Your task to perform on an android device: open sync settings in chrome Image 0: 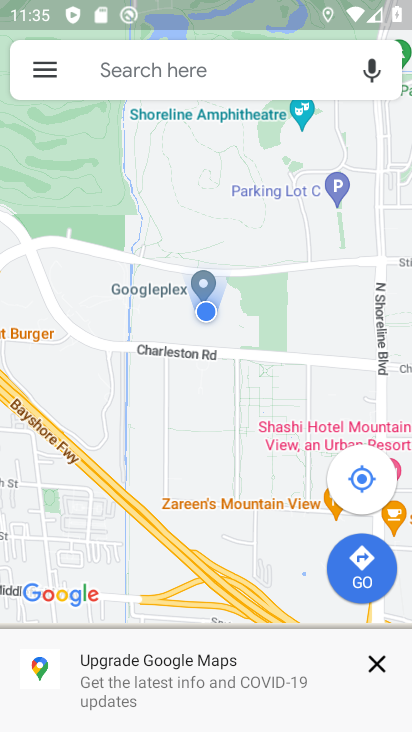
Step 0: press home button
Your task to perform on an android device: open sync settings in chrome Image 1: 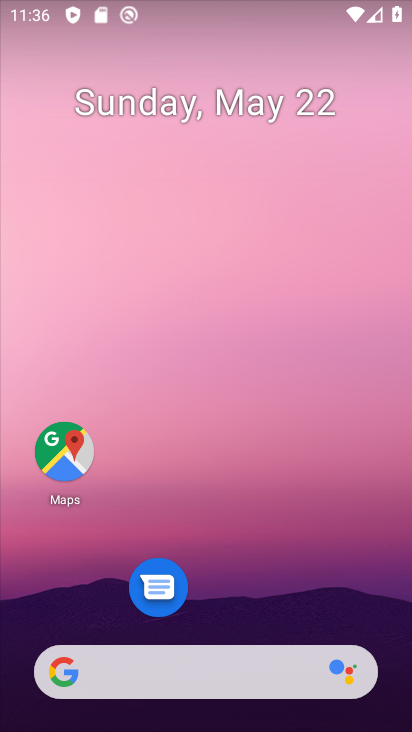
Step 1: drag from (227, 622) to (244, 44)
Your task to perform on an android device: open sync settings in chrome Image 2: 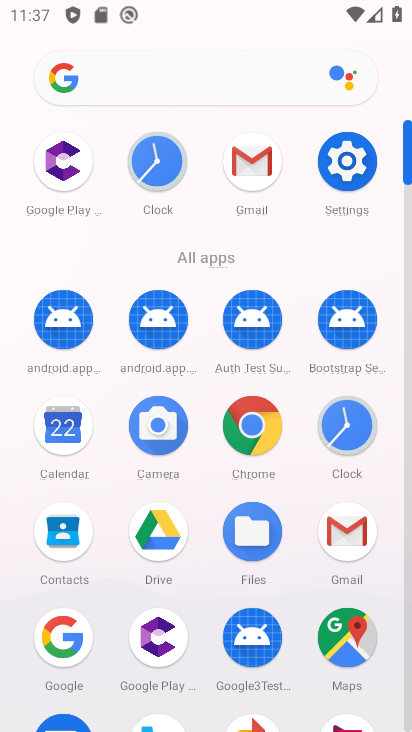
Step 2: click (246, 397)
Your task to perform on an android device: open sync settings in chrome Image 3: 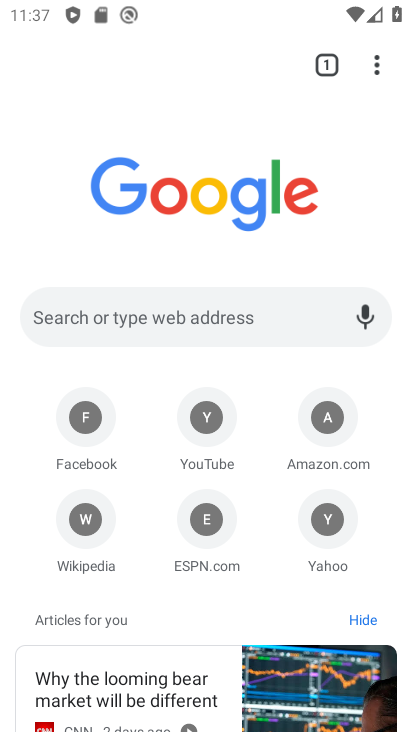
Step 3: click (378, 72)
Your task to perform on an android device: open sync settings in chrome Image 4: 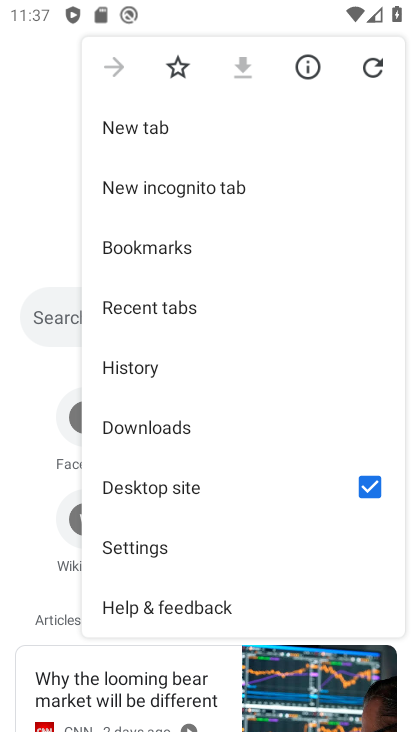
Step 4: click (122, 555)
Your task to perform on an android device: open sync settings in chrome Image 5: 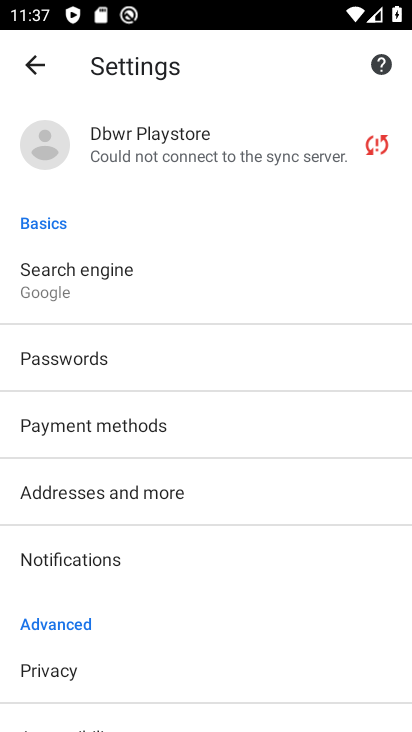
Step 5: click (116, 124)
Your task to perform on an android device: open sync settings in chrome Image 6: 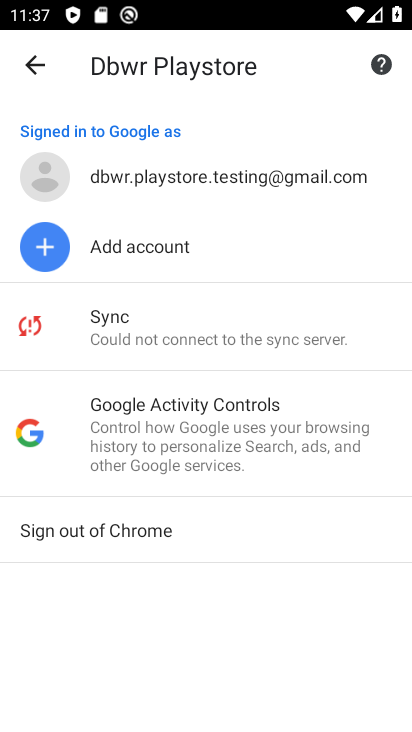
Step 6: task complete